Your task to perform on an android device: Turn on the flashlight Image 0: 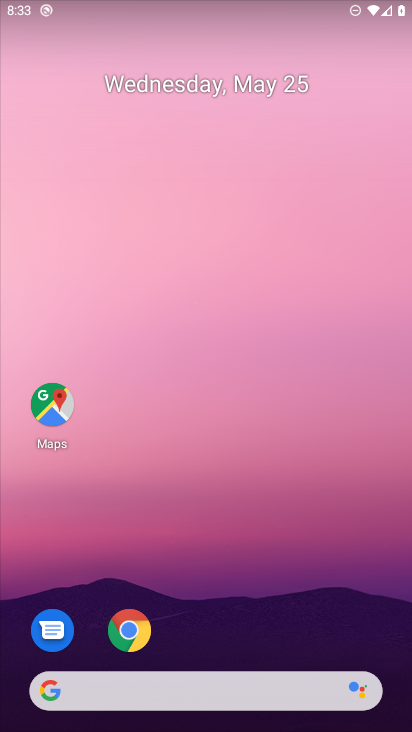
Step 0: drag from (256, 9) to (252, 474)
Your task to perform on an android device: Turn on the flashlight Image 1: 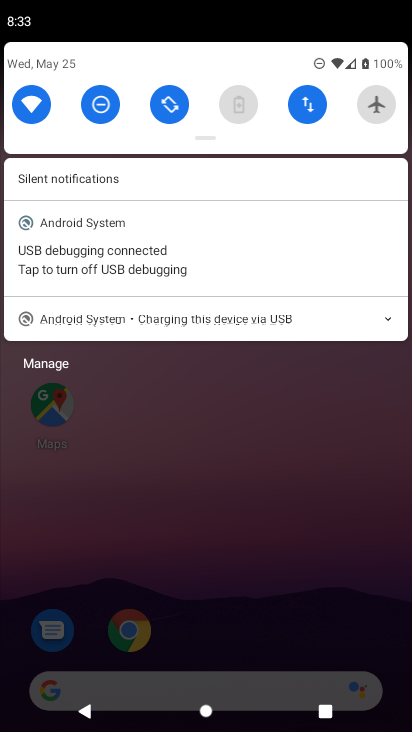
Step 1: drag from (291, 114) to (294, 475)
Your task to perform on an android device: Turn on the flashlight Image 2: 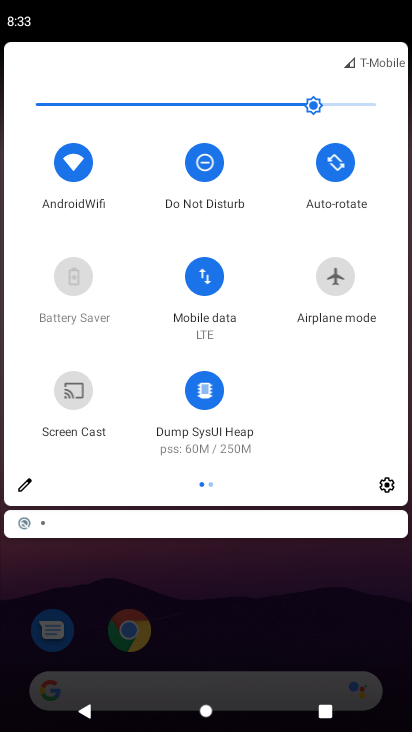
Step 2: drag from (325, 359) to (23, 359)
Your task to perform on an android device: Turn on the flashlight Image 3: 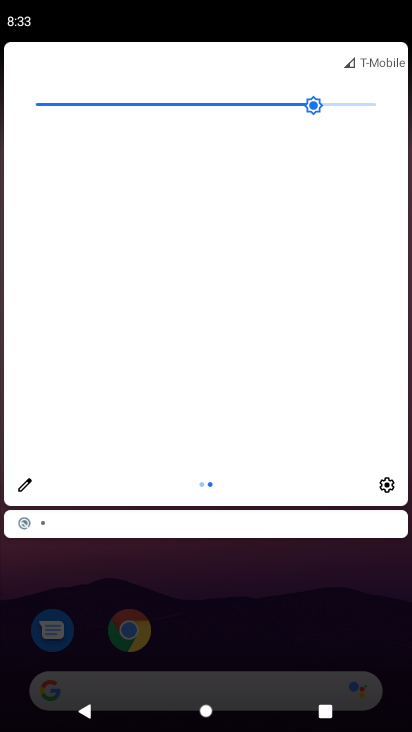
Step 3: click (28, 487)
Your task to perform on an android device: Turn on the flashlight Image 4: 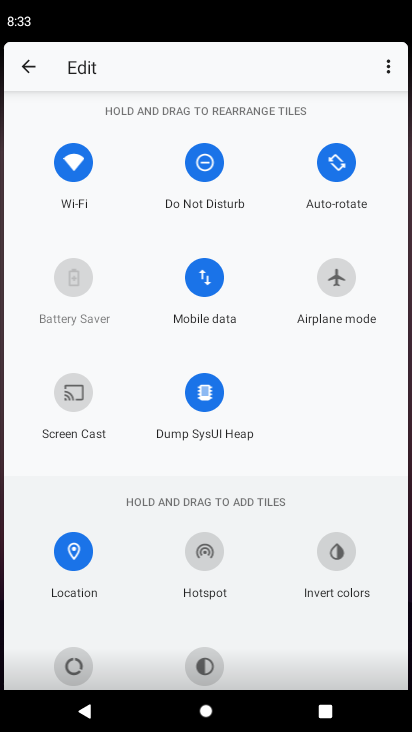
Step 4: task complete